Your task to perform on an android device: Play the last video I watched on Youtube Image 0: 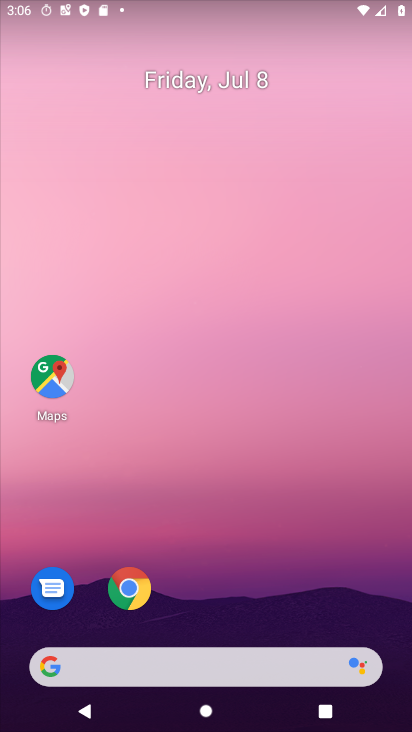
Step 0: press home button
Your task to perform on an android device: Play the last video I watched on Youtube Image 1: 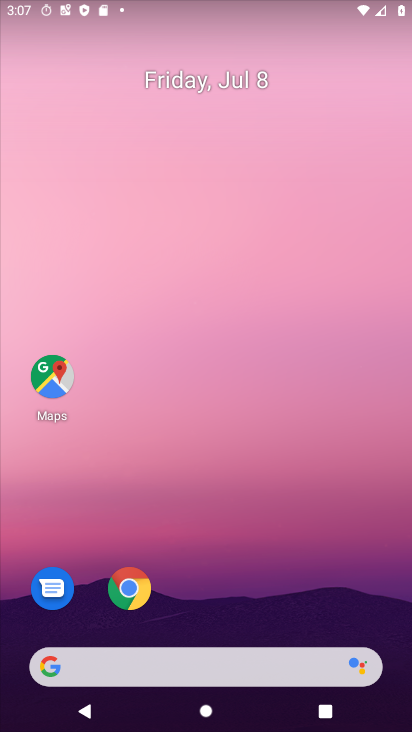
Step 1: press home button
Your task to perform on an android device: Play the last video I watched on Youtube Image 2: 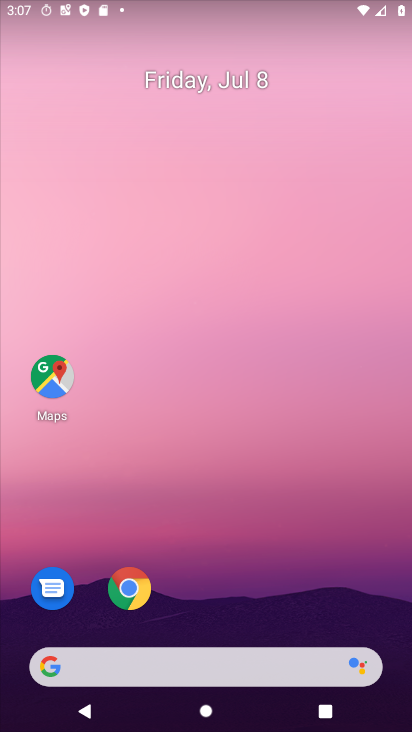
Step 2: drag from (191, 607) to (219, 0)
Your task to perform on an android device: Play the last video I watched on Youtube Image 3: 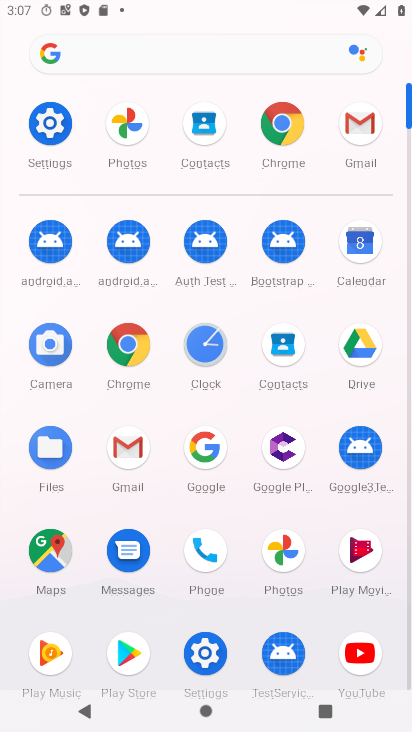
Step 3: click (366, 664)
Your task to perform on an android device: Play the last video I watched on Youtube Image 4: 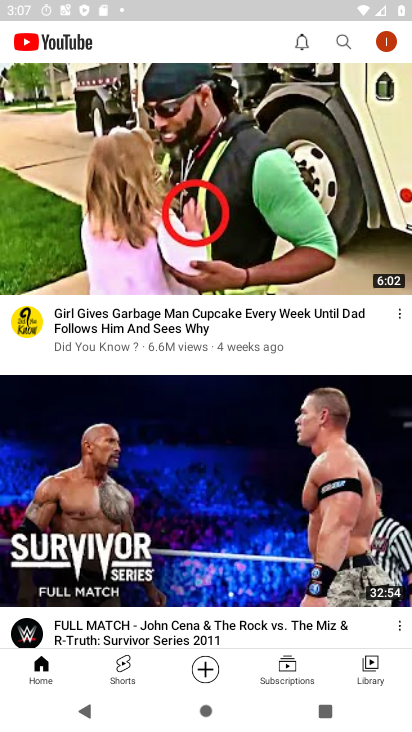
Step 4: click (373, 672)
Your task to perform on an android device: Play the last video I watched on Youtube Image 5: 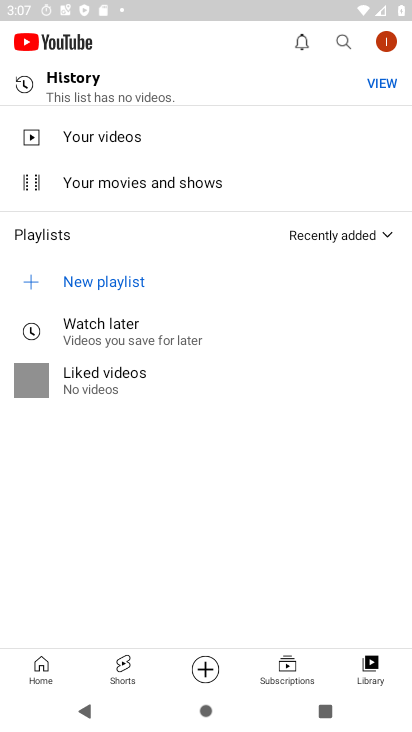
Step 5: task complete